Your task to perform on an android device: turn smart compose on in the gmail app Image 0: 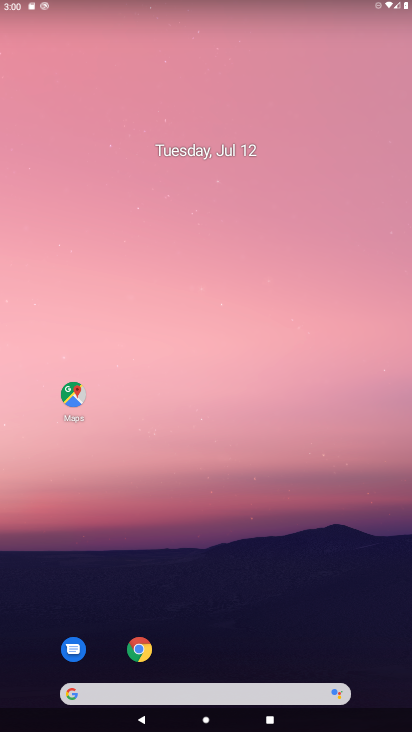
Step 0: drag from (324, 630) to (217, 82)
Your task to perform on an android device: turn smart compose on in the gmail app Image 1: 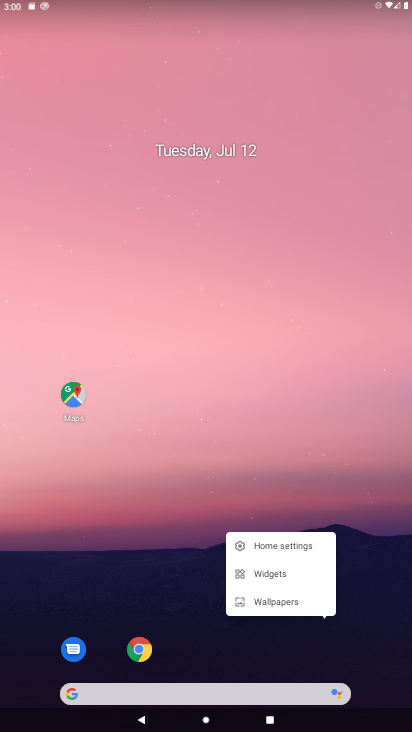
Step 1: click (191, 312)
Your task to perform on an android device: turn smart compose on in the gmail app Image 2: 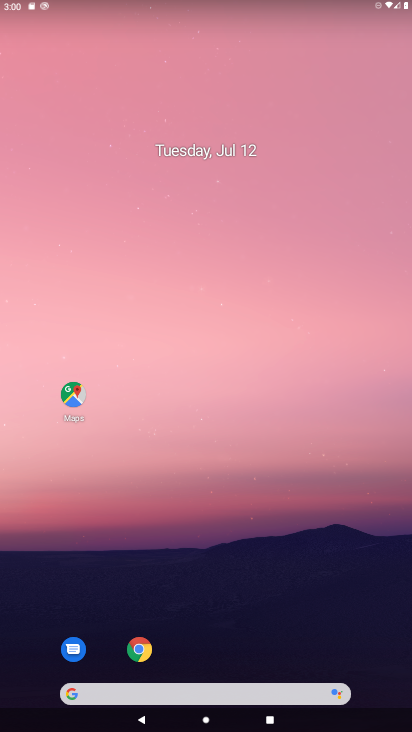
Step 2: drag from (236, 573) to (211, 143)
Your task to perform on an android device: turn smart compose on in the gmail app Image 3: 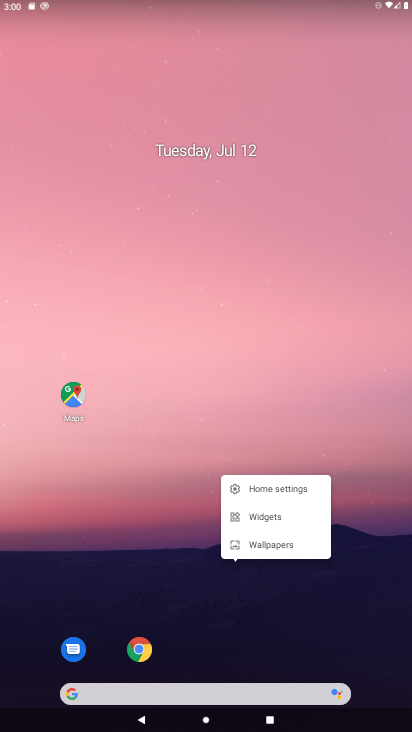
Step 3: click (165, 341)
Your task to perform on an android device: turn smart compose on in the gmail app Image 4: 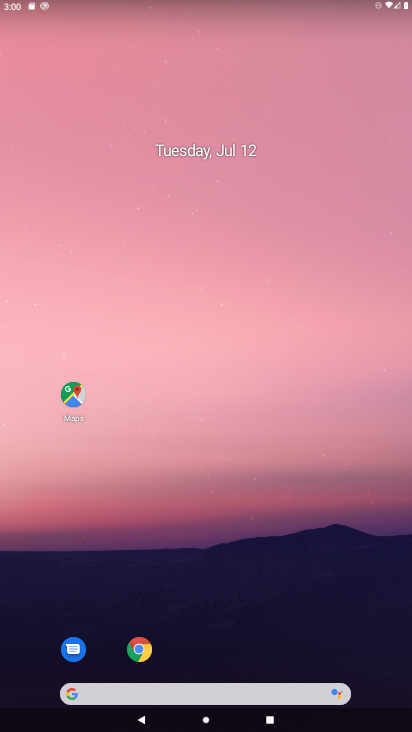
Step 4: drag from (226, 600) to (172, 132)
Your task to perform on an android device: turn smart compose on in the gmail app Image 5: 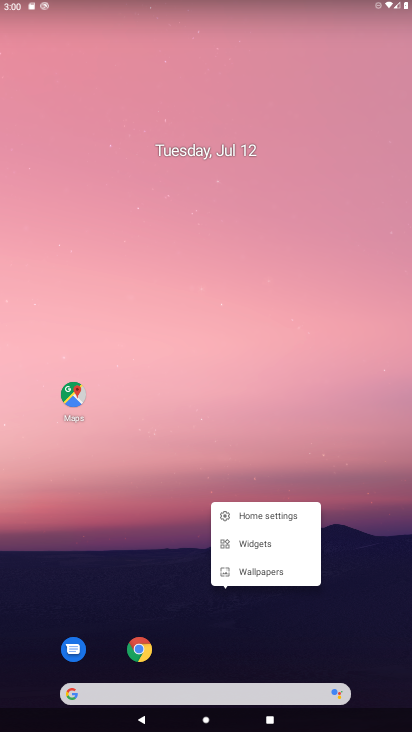
Step 5: click (172, 515)
Your task to perform on an android device: turn smart compose on in the gmail app Image 6: 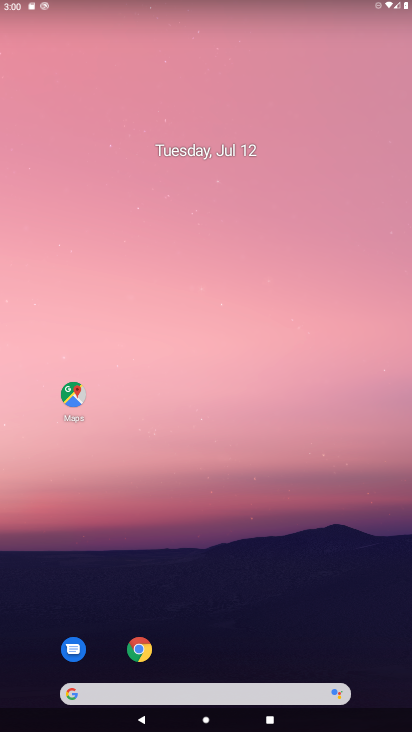
Step 6: drag from (227, 629) to (182, 121)
Your task to perform on an android device: turn smart compose on in the gmail app Image 7: 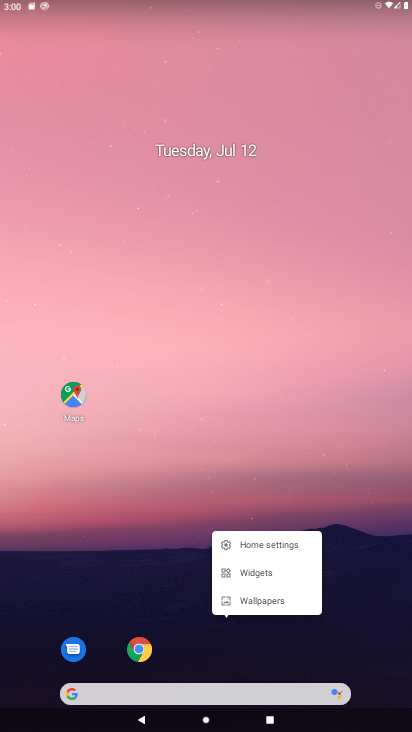
Step 7: click (181, 206)
Your task to perform on an android device: turn smart compose on in the gmail app Image 8: 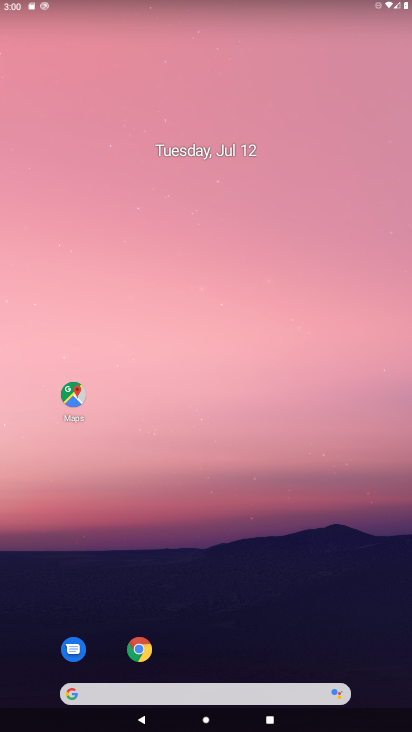
Step 8: drag from (221, 647) to (256, 199)
Your task to perform on an android device: turn smart compose on in the gmail app Image 9: 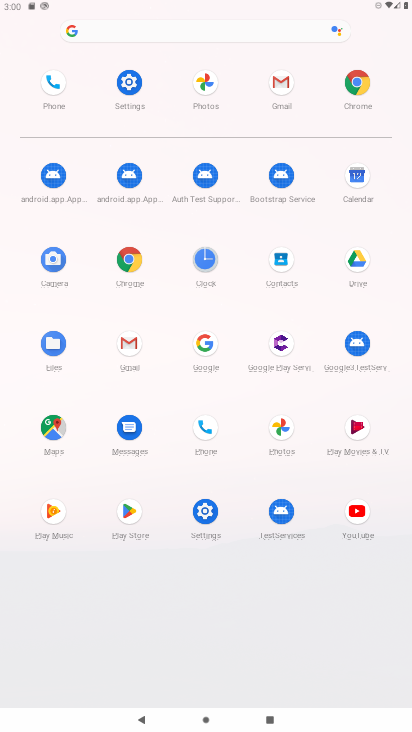
Step 9: click (284, 79)
Your task to perform on an android device: turn smart compose on in the gmail app Image 10: 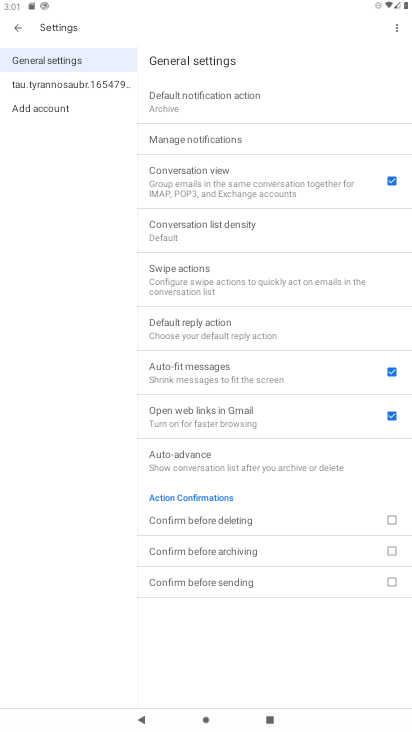
Step 10: click (76, 86)
Your task to perform on an android device: turn smart compose on in the gmail app Image 11: 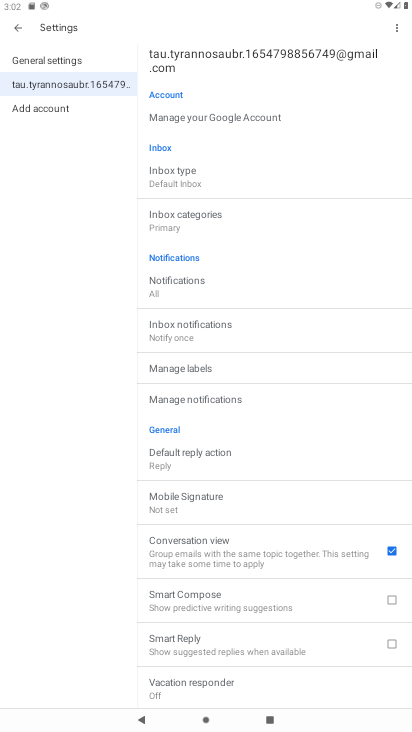
Step 11: click (255, 591)
Your task to perform on an android device: turn smart compose on in the gmail app Image 12: 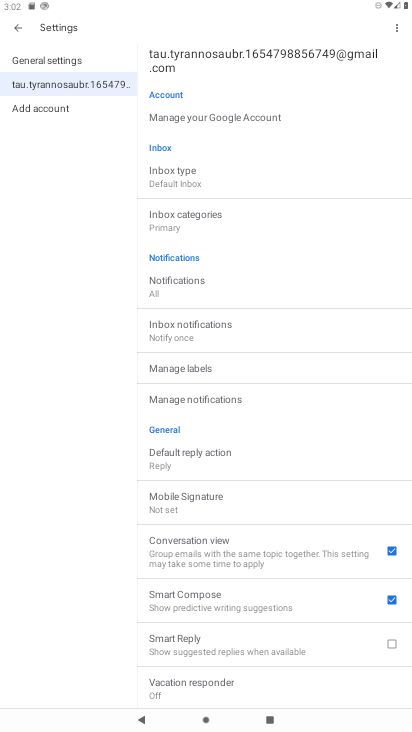
Step 12: task complete